Your task to perform on an android device: toggle priority inbox in the gmail app Image 0: 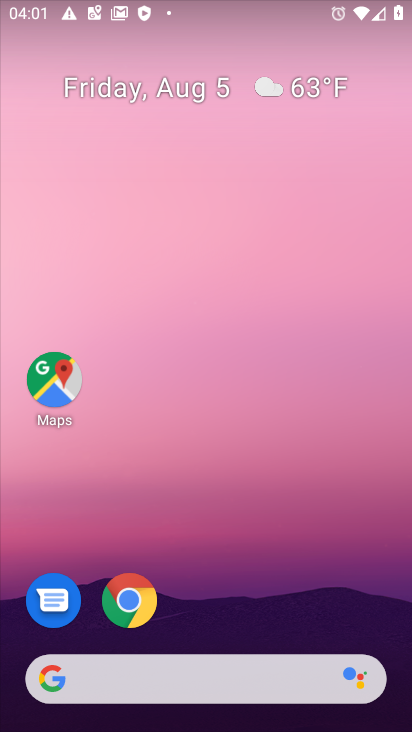
Step 0: drag from (187, 682) to (235, 90)
Your task to perform on an android device: toggle priority inbox in the gmail app Image 1: 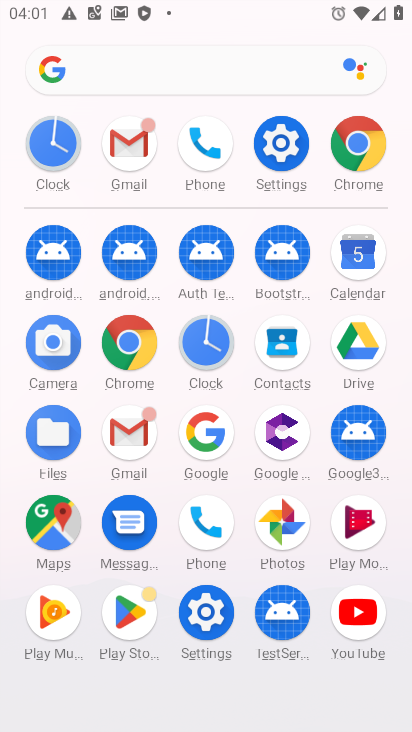
Step 1: click (128, 143)
Your task to perform on an android device: toggle priority inbox in the gmail app Image 2: 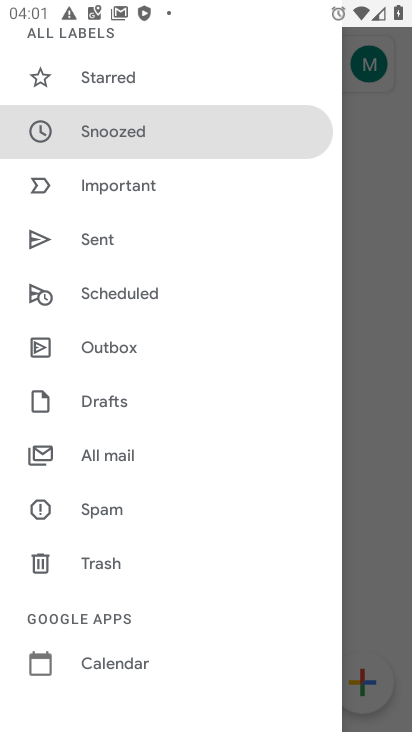
Step 2: drag from (115, 530) to (176, 284)
Your task to perform on an android device: toggle priority inbox in the gmail app Image 3: 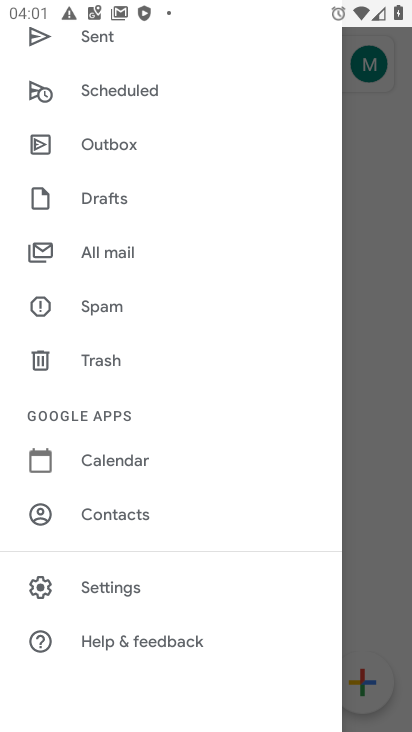
Step 3: click (111, 592)
Your task to perform on an android device: toggle priority inbox in the gmail app Image 4: 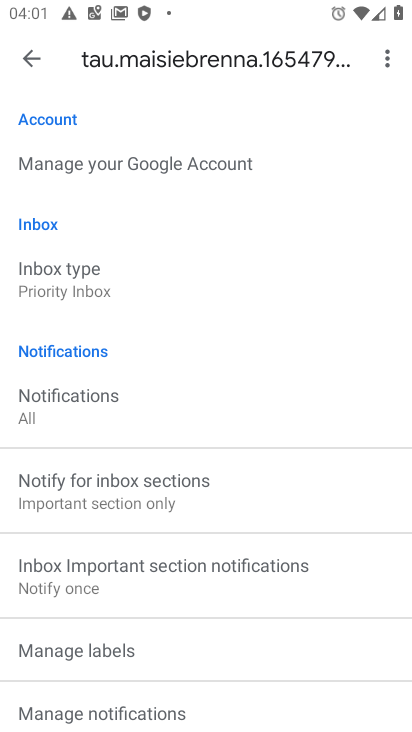
Step 4: click (77, 285)
Your task to perform on an android device: toggle priority inbox in the gmail app Image 5: 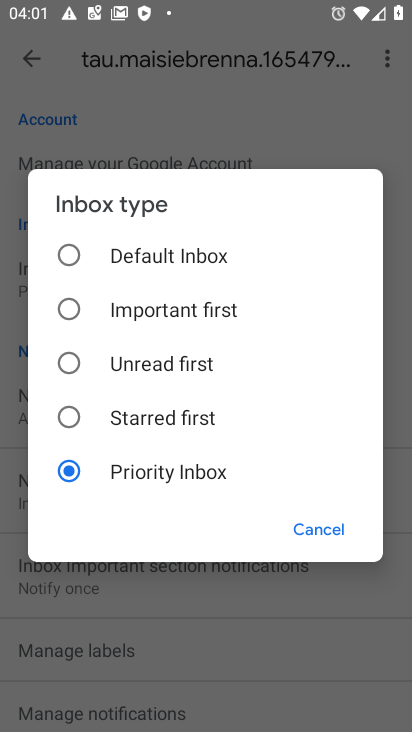
Step 5: click (66, 255)
Your task to perform on an android device: toggle priority inbox in the gmail app Image 6: 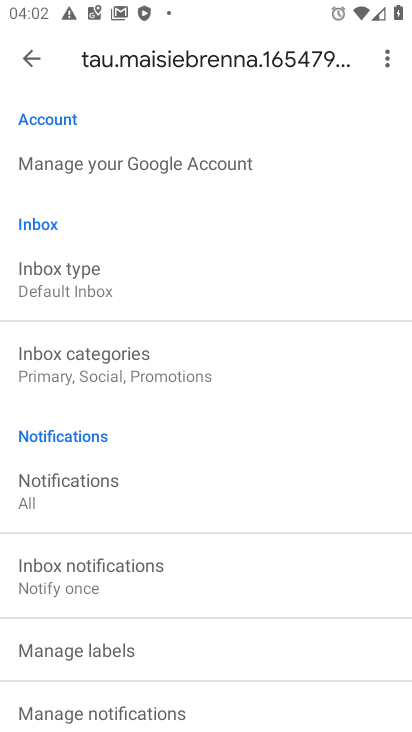
Step 6: task complete